Your task to perform on an android device: Turn off the flashlight Image 0: 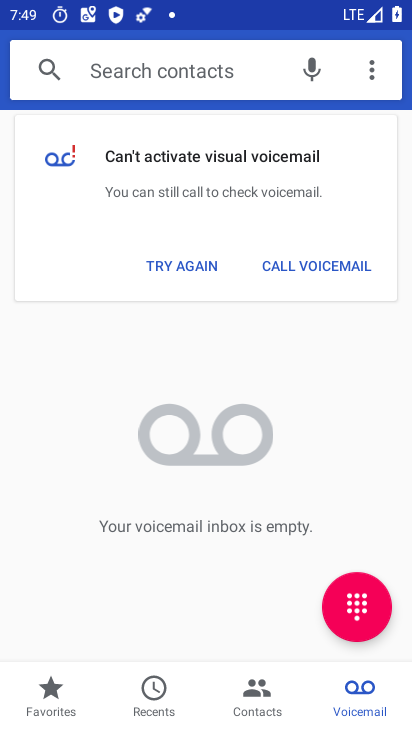
Step 0: press home button
Your task to perform on an android device: Turn off the flashlight Image 1: 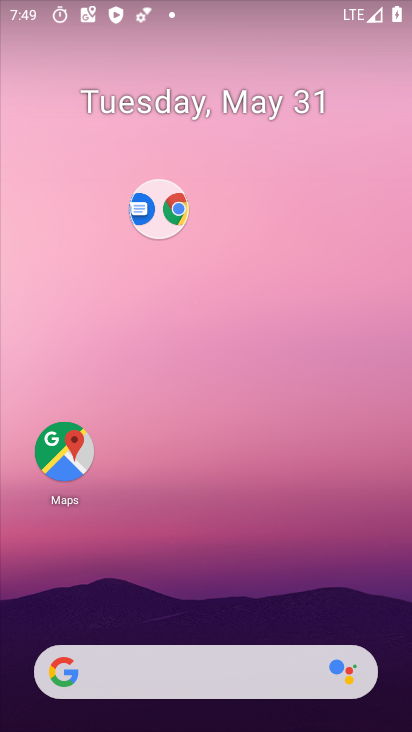
Step 1: task complete